Your task to perform on an android device: turn on showing notifications on the lock screen Image 0: 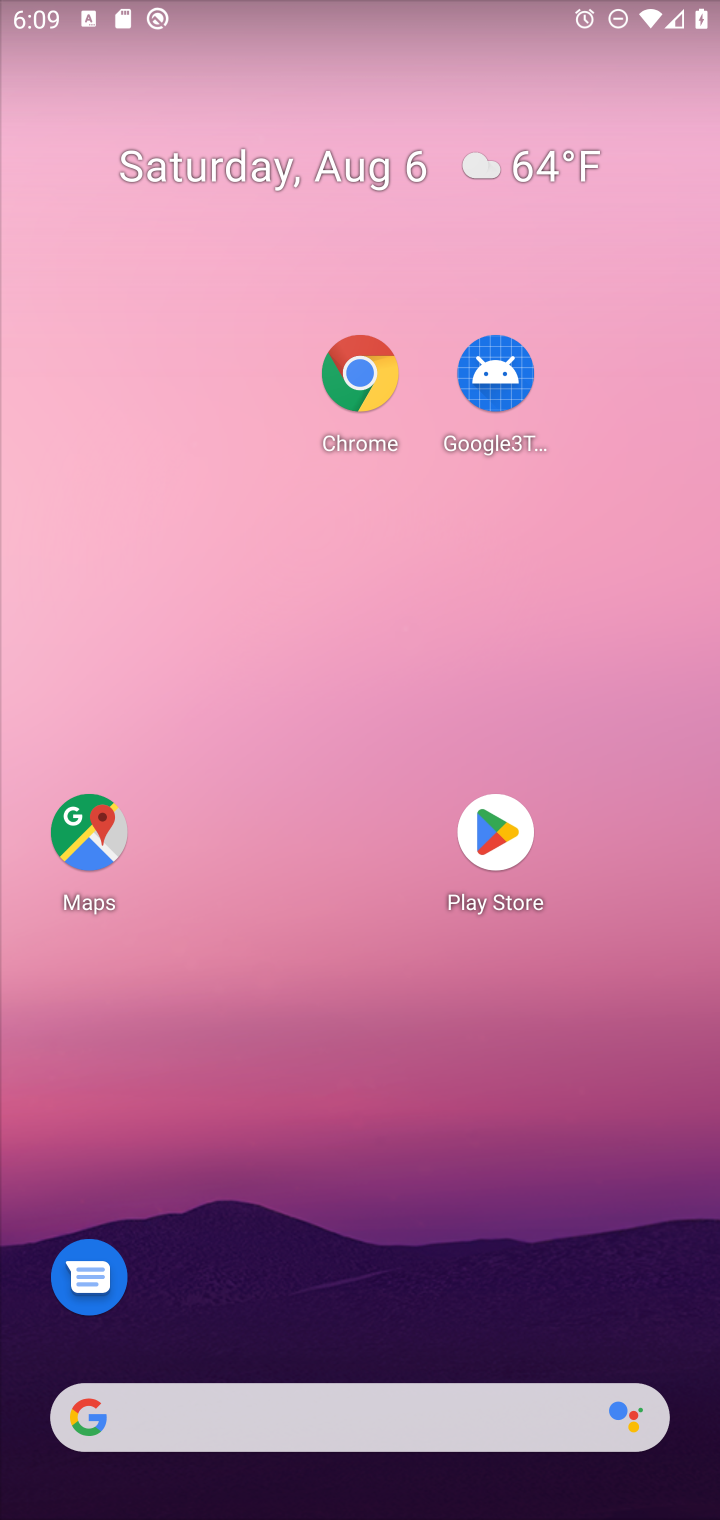
Step 0: drag from (554, 1424) to (413, 35)
Your task to perform on an android device: turn on showing notifications on the lock screen Image 1: 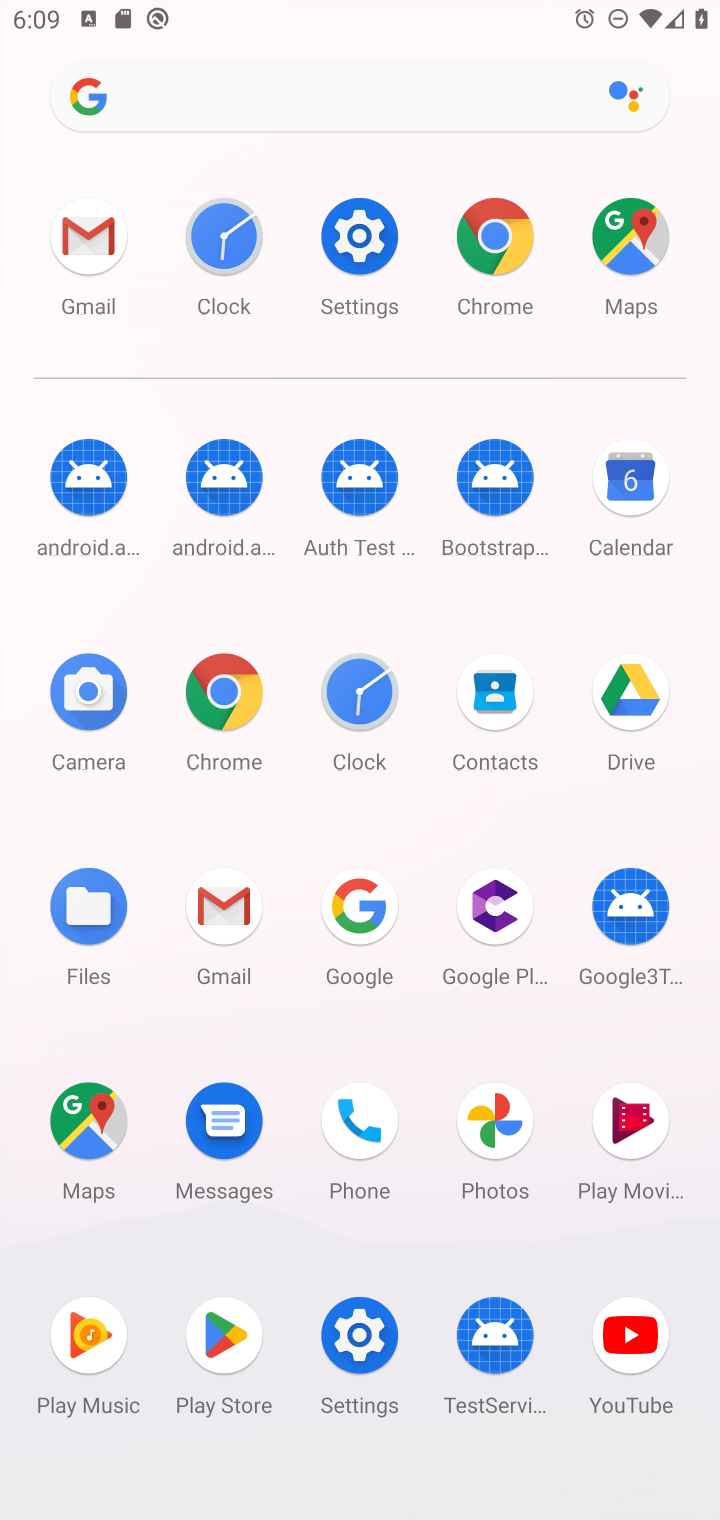
Step 1: click (354, 215)
Your task to perform on an android device: turn on showing notifications on the lock screen Image 2: 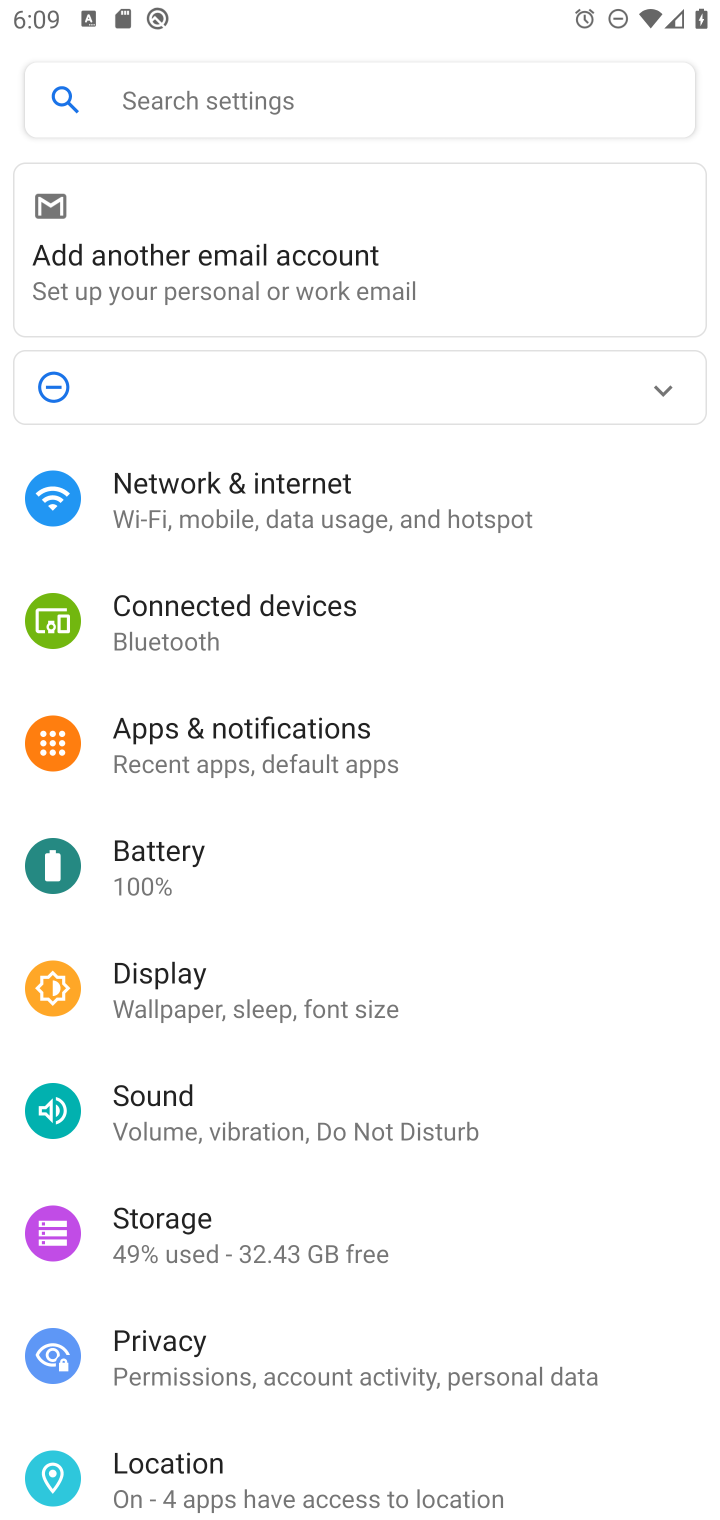
Step 2: click (270, 737)
Your task to perform on an android device: turn on showing notifications on the lock screen Image 3: 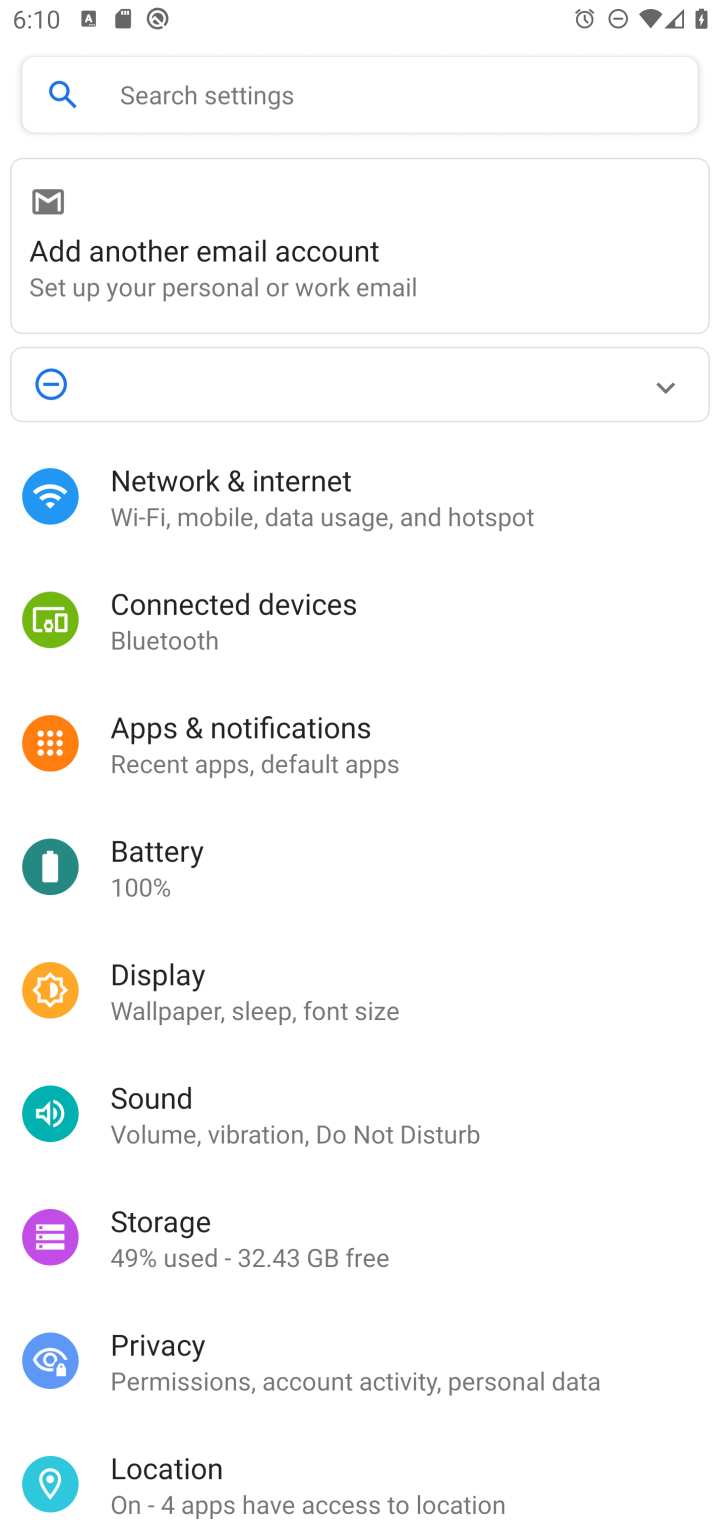
Step 3: click (270, 737)
Your task to perform on an android device: turn on showing notifications on the lock screen Image 4: 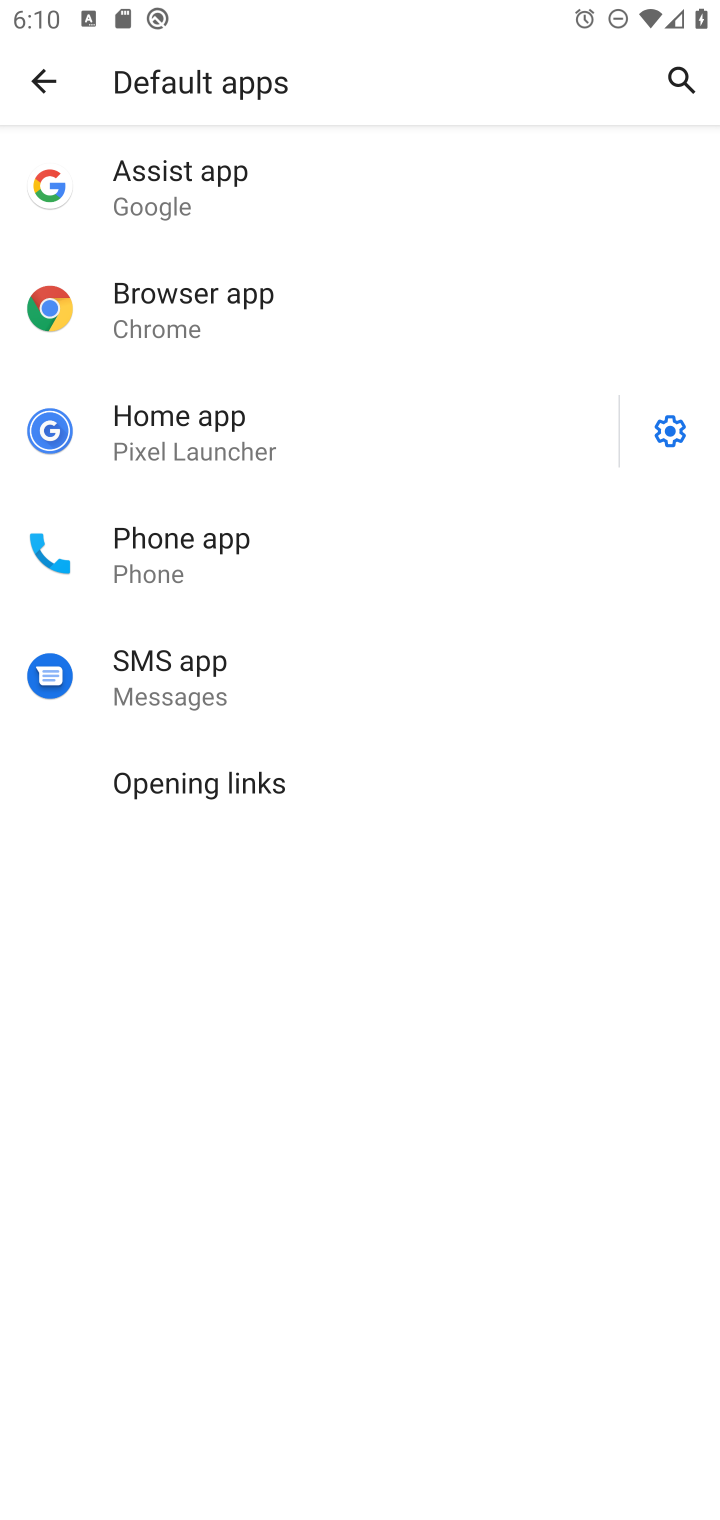
Step 4: press back button
Your task to perform on an android device: turn on showing notifications on the lock screen Image 5: 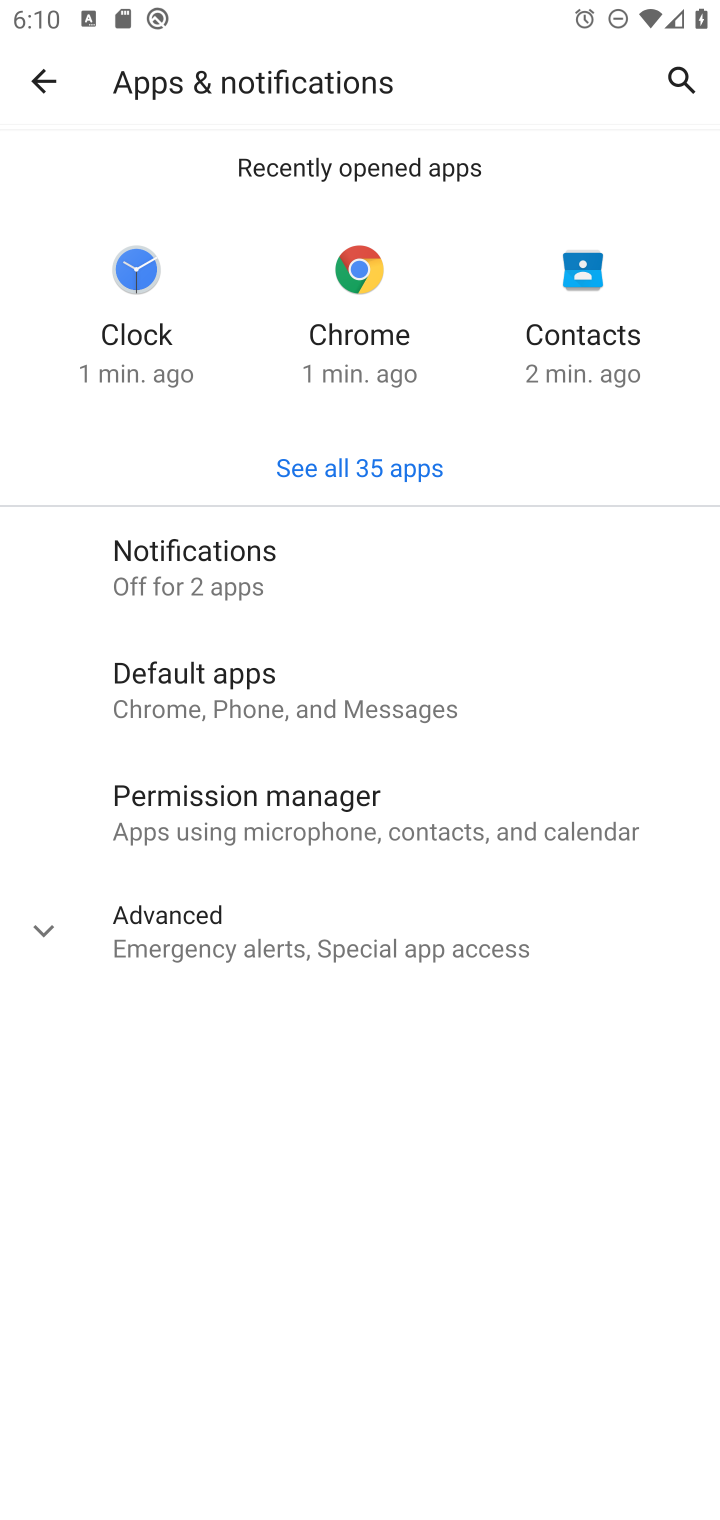
Step 5: click (297, 588)
Your task to perform on an android device: turn on showing notifications on the lock screen Image 6: 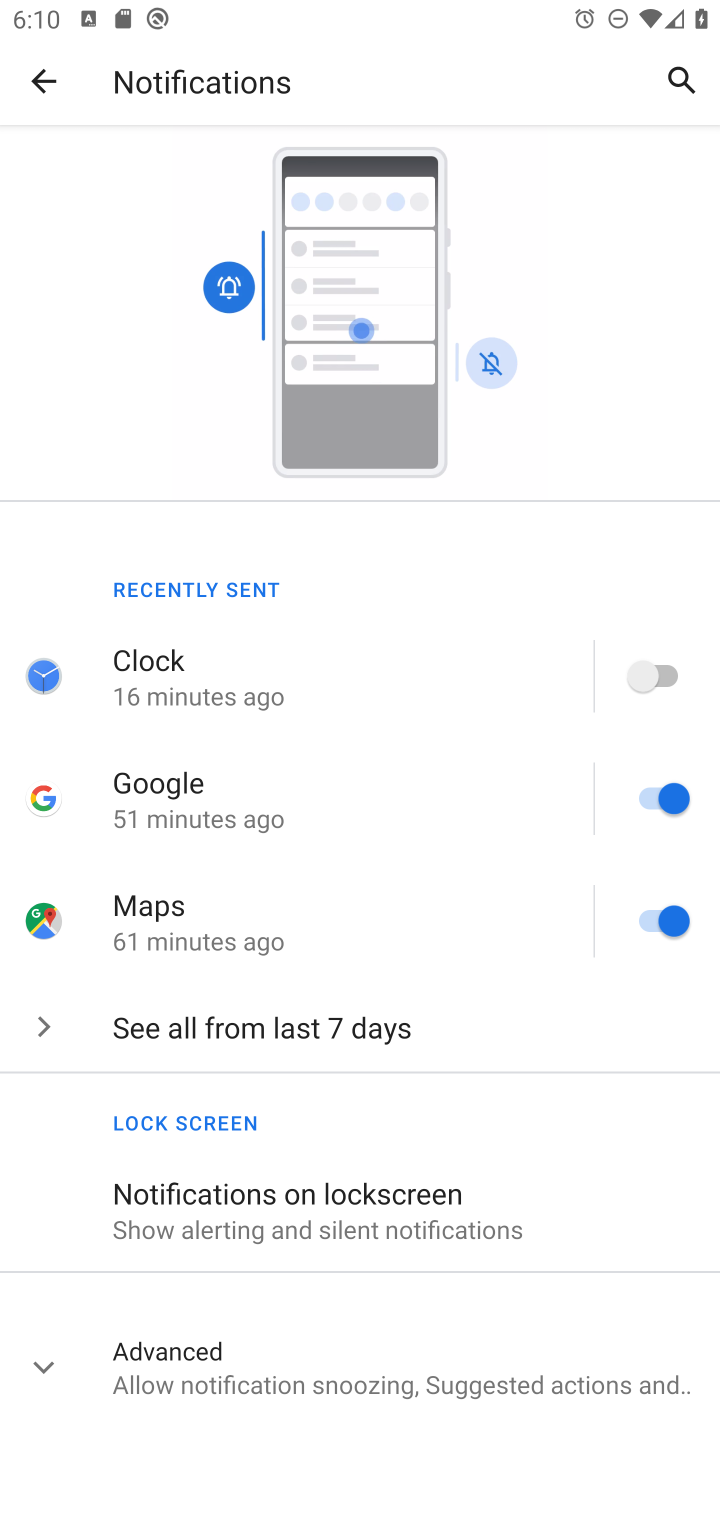
Step 6: click (308, 1196)
Your task to perform on an android device: turn on showing notifications on the lock screen Image 7: 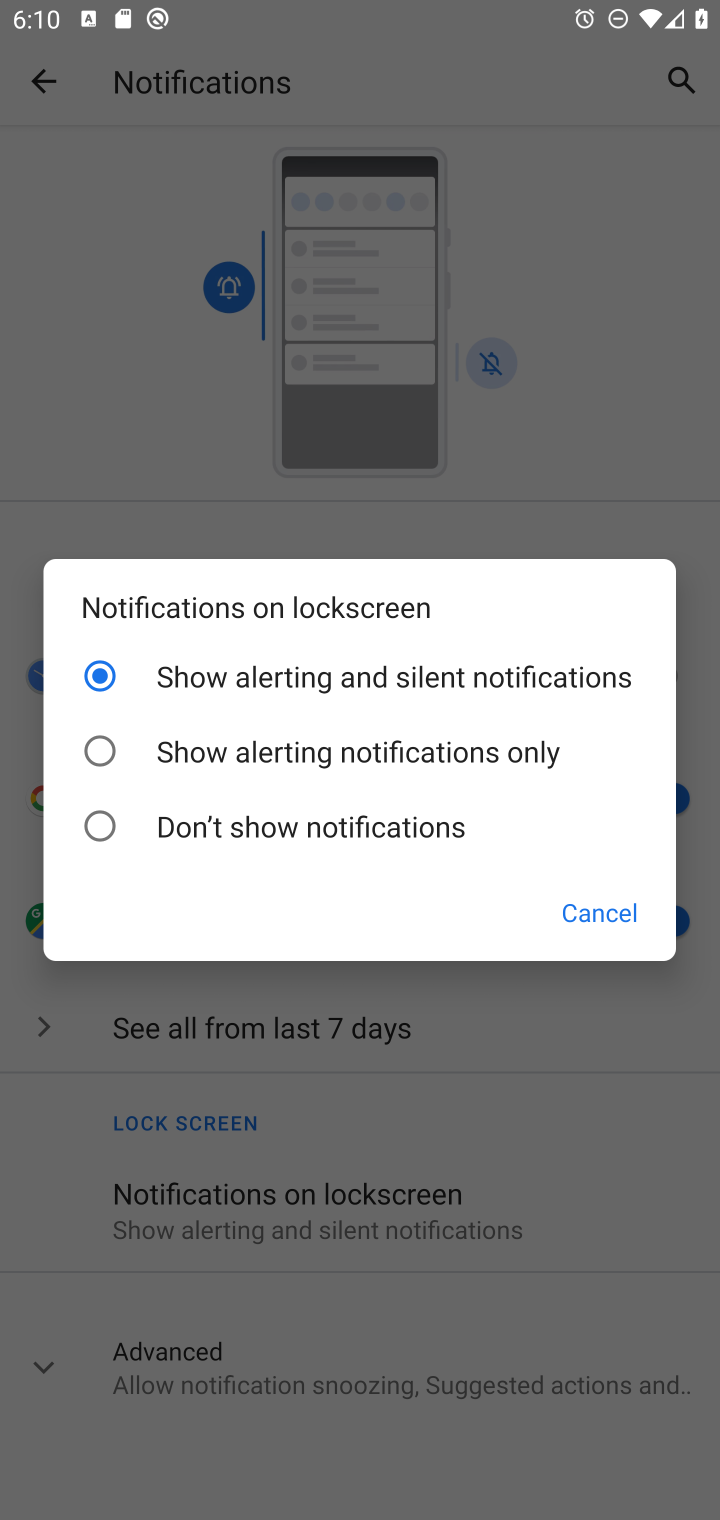
Step 7: task complete